Your task to perform on an android device: Clear the cart on walmart. Search for dell alienware on walmart, select the first entry, add it to the cart, then select checkout. Image 0: 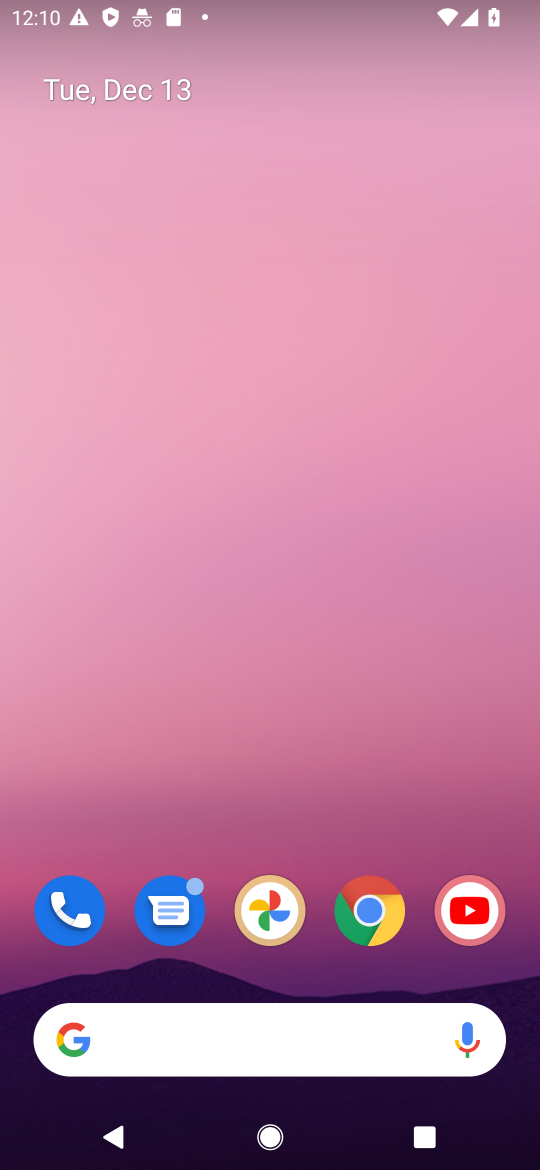
Step 0: click (375, 926)
Your task to perform on an android device: Clear the cart on walmart. Search for dell alienware on walmart, select the first entry, add it to the cart, then select checkout. Image 1: 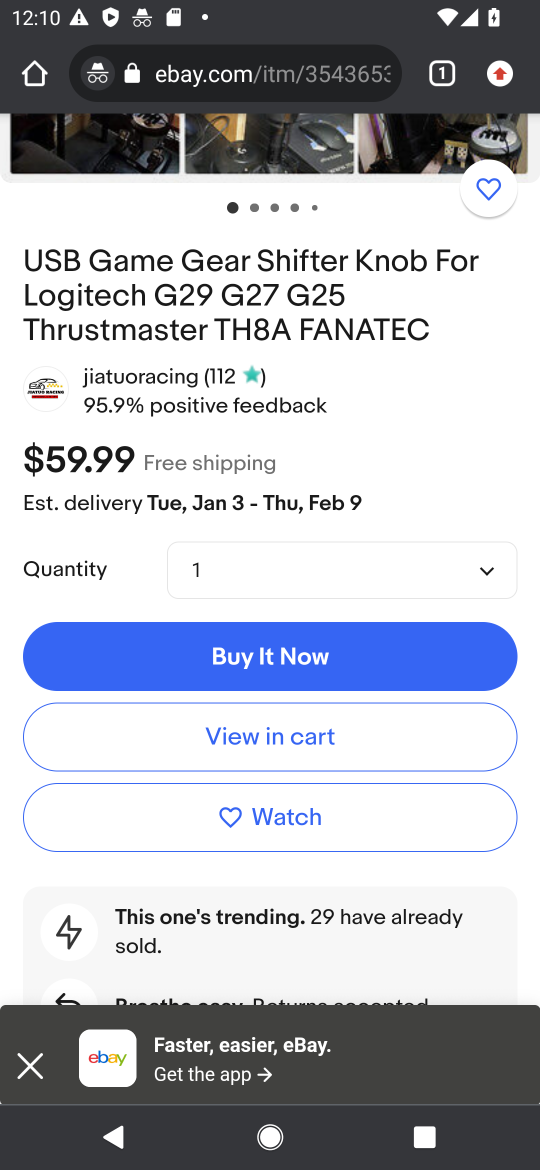
Step 1: click (191, 79)
Your task to perform on an android device: Clear the cart on walmart. Search for dell alienware on walmart, select the first entry, add it to the cart, then select checkout. Image 2: 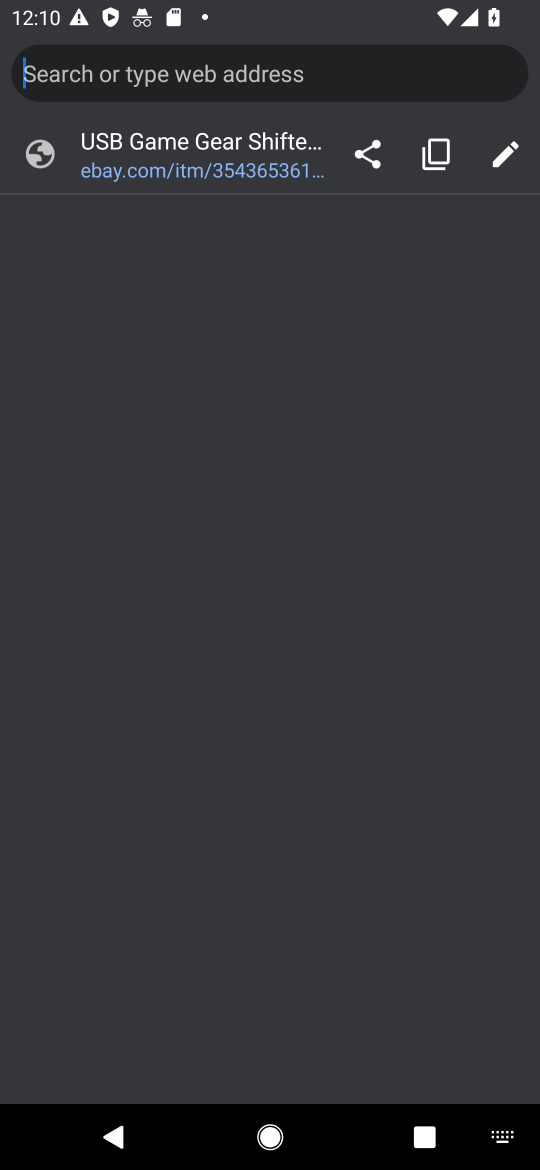
Step 2: type "WALMART"
Your task to perform on an android device: Clear the cart on walmart. Search for dell alienware on walmart, select the first entry, add it to the cart, then select checkout. Image 3: 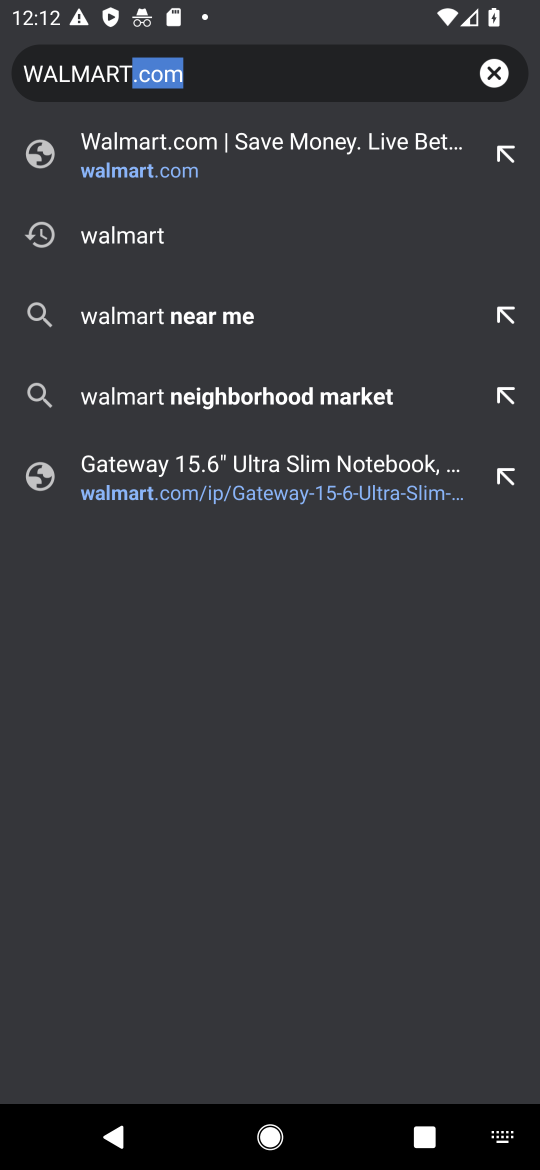
Step 3: click (232, 152)
Your task to perform on an android device: Clear the cart on walmart. Search for dell alienware on walmart, select the first entry, add it to the cart, then select checkout. Image 4: 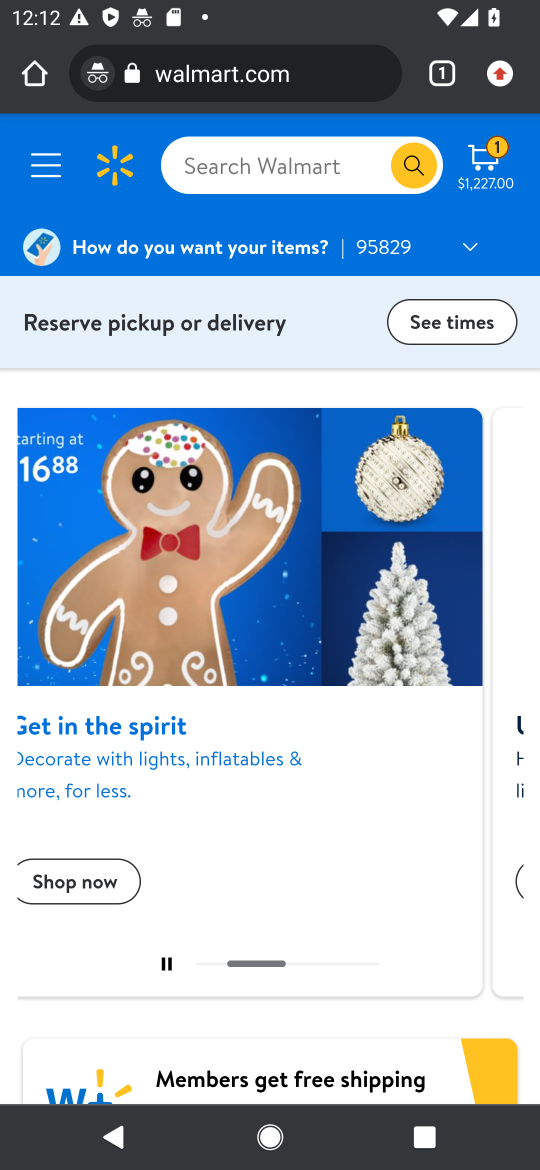
Step 4: click (273, 152)
Your task to perform on an android device: Clear the cart on walmart. Search for dell alienware on walmart, select the first entry, add it to the cart, then select checkout. Image 5: 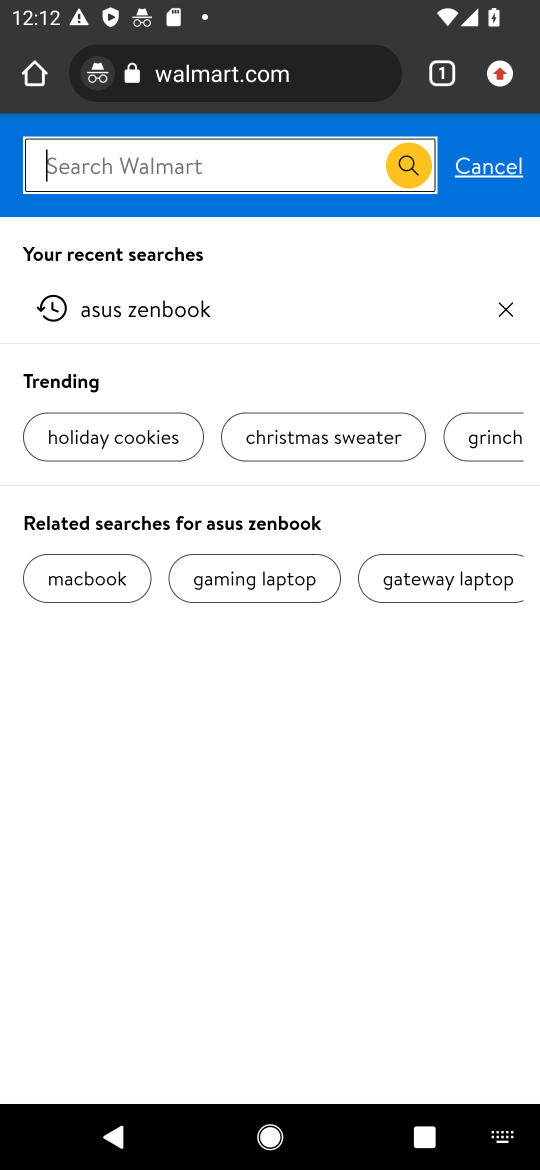
Step 5: type "dell alienware "
Your task to perform on an android device: Clear the cart on walmart. Search for dell alienware on walmart, select the first entry, add it to the cart, then select checkout. Image 6: 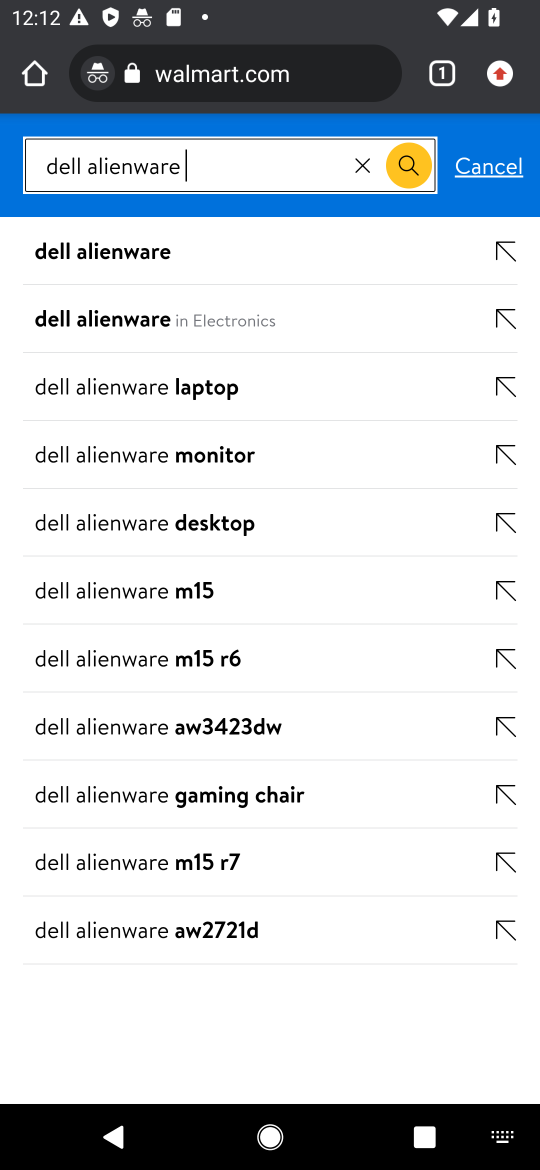
Step 6: click (115, 255)
Your task to perform on an android device: Clear the cart on walmart. Search for dell alienware on walmart, select the first entry, add it to the cart, then select checkout. Image 7: 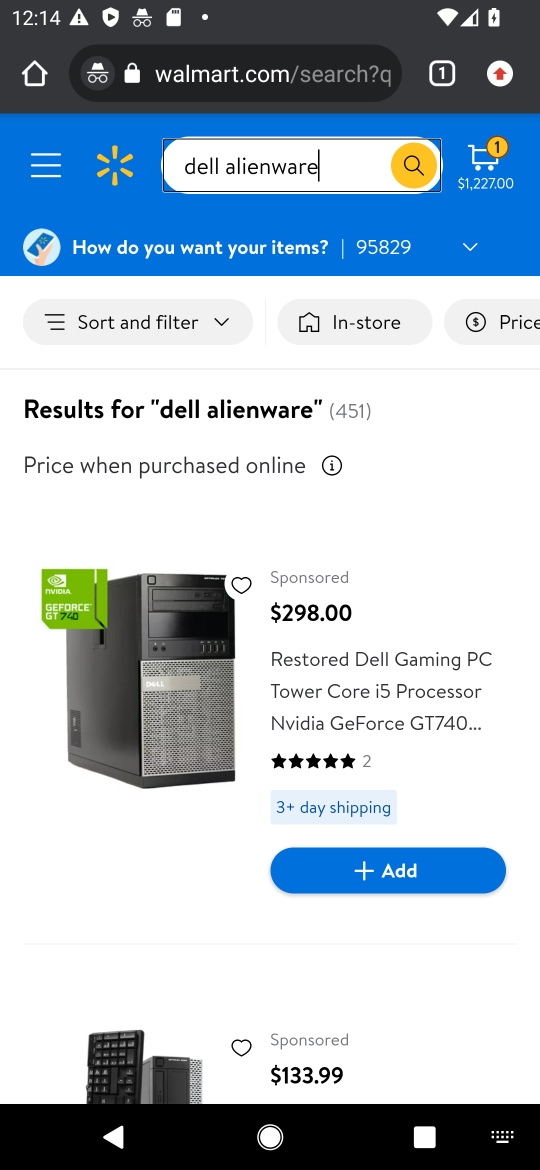
Step 7: click (411, 881)
Your task to perform on an android device: Clear the cart on walmart. Search for dell alienware on walmart, select the first entry, add it to the cart, then select checkout. Image 8: 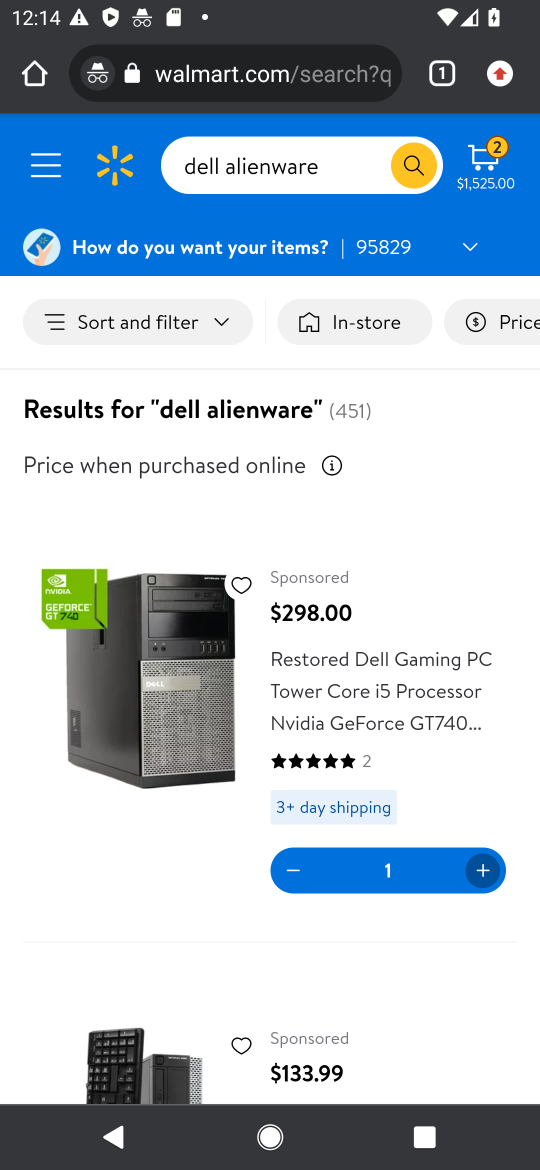
Step 8: click (484, 169)
Your task to perform on an android device: Clear the cart on walmart. Search for dell alienware on walmart, select the first entry, add it to the cart, then select checkout. Image 9: 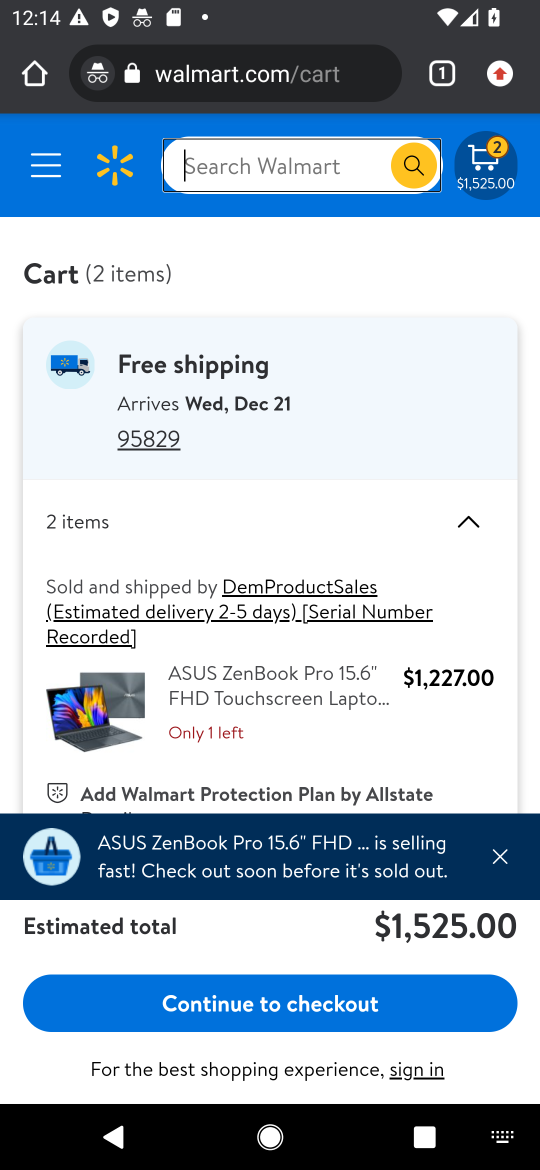
Step 9: click (275, 1000)
Your task to perform on an android device: Clear the cart on walmart. Search for dell alienware on walmart, select the first entry, add it to the cart, then select checkout. Image 10: 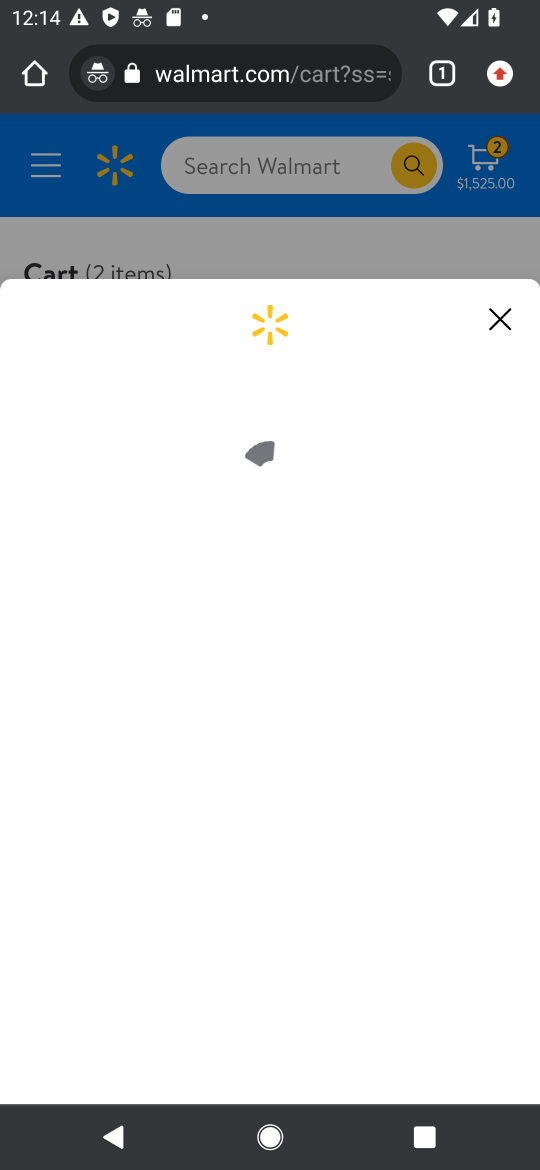
Step 10: task complete